Your task to perform on an android device: open app "Facebook Messenger" (install if not already installed) and enter user name: "divorce@inbox.com" and password: "caviar" Image 0: 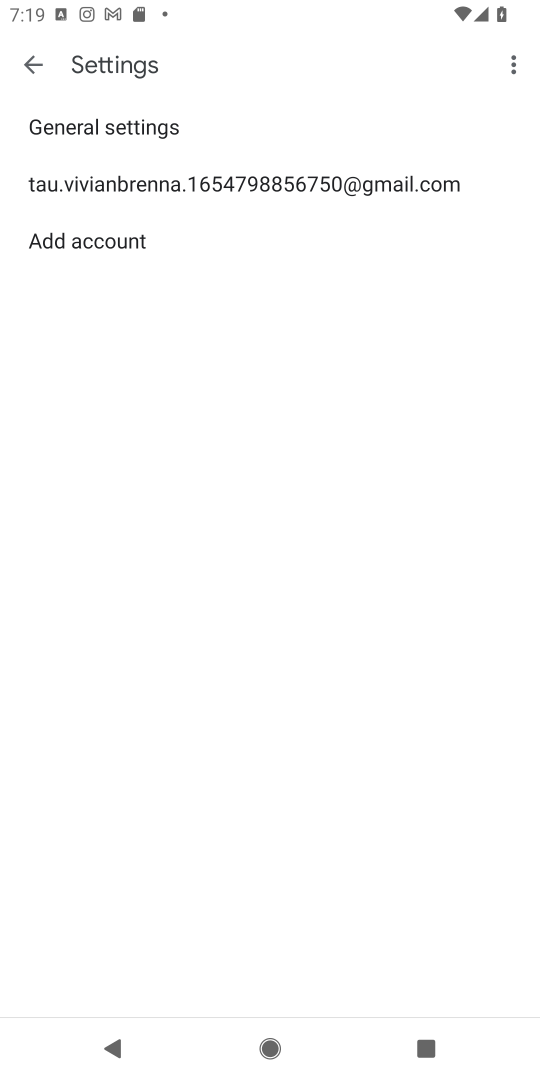
Step 0: press home button
Your task to perform on an android device: open app "Facebook Messenger" (install if not already installed) and enter user name: "divorce@inbox.com" and password: "caviar" Image 1: 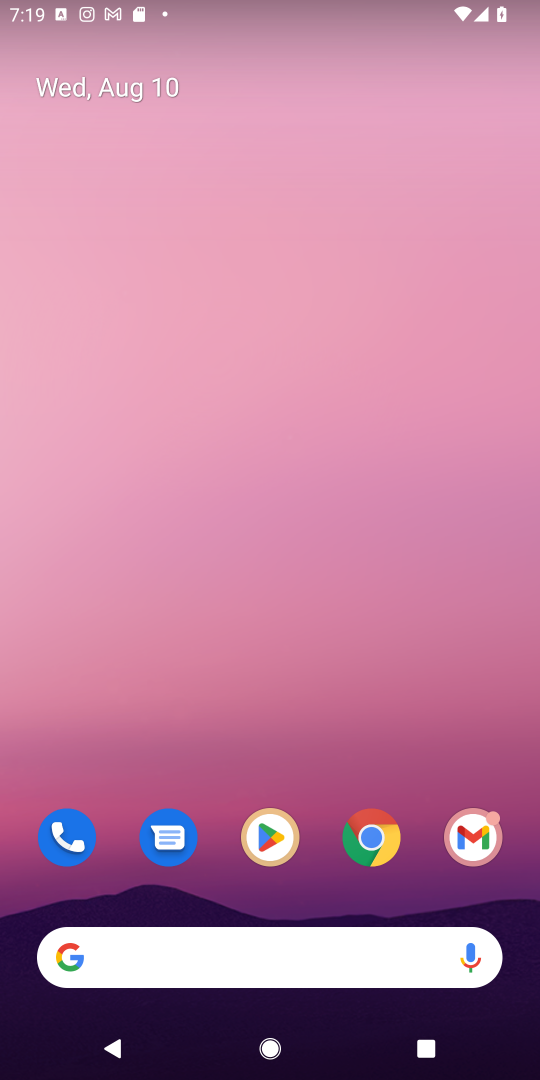
Step 1: click (257, 831)
Your task to perform on an android device: open app "Facebook Messenger" (install if not already installed) and enter user name: "divorce@inbox.com" and password: "caviar" Image 2: 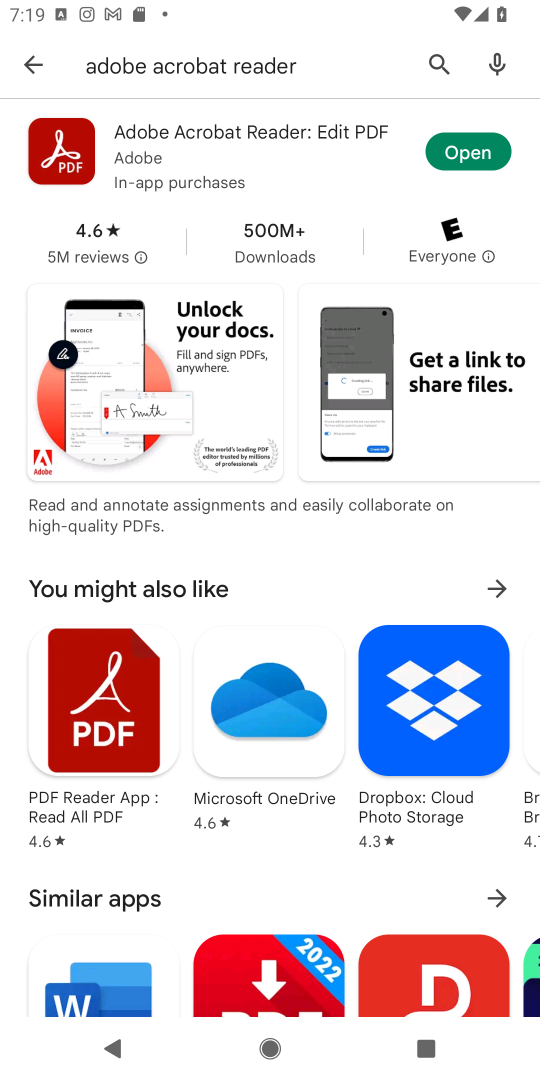
Step 2: click (431, 58)
Your task to perform on an android device: open app "Facebook Messenger" (install if not already installed) and enter user name: "divorce@inbox.com" and password: "caviar" Image 3: 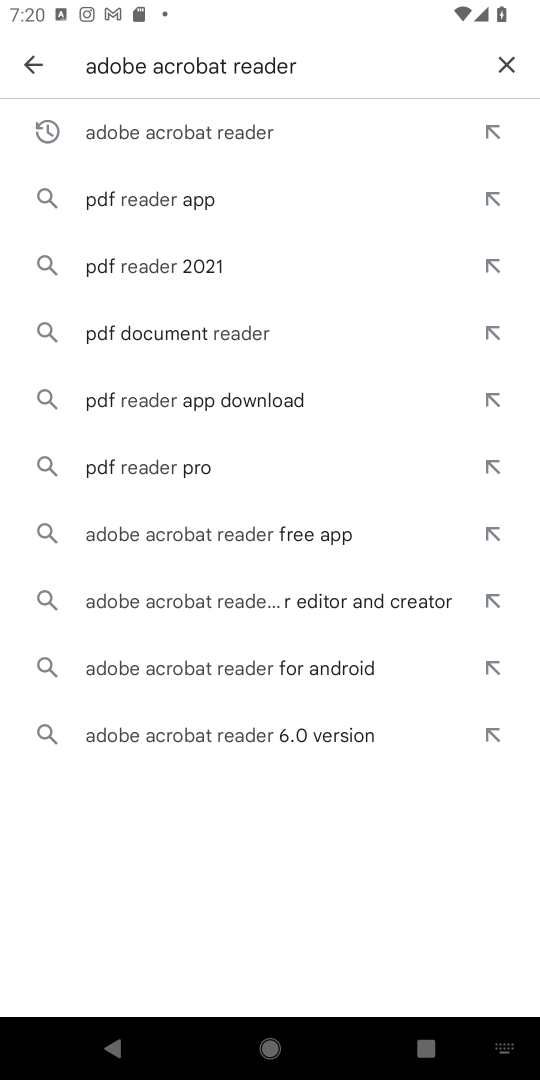
Step 3: click (507, 58)
Your task to perform on an android device: open app "Facebook Messenger" (install if not already installed) and enter user name: "divorce@inbox.com" and password: "caviar" Image 4: 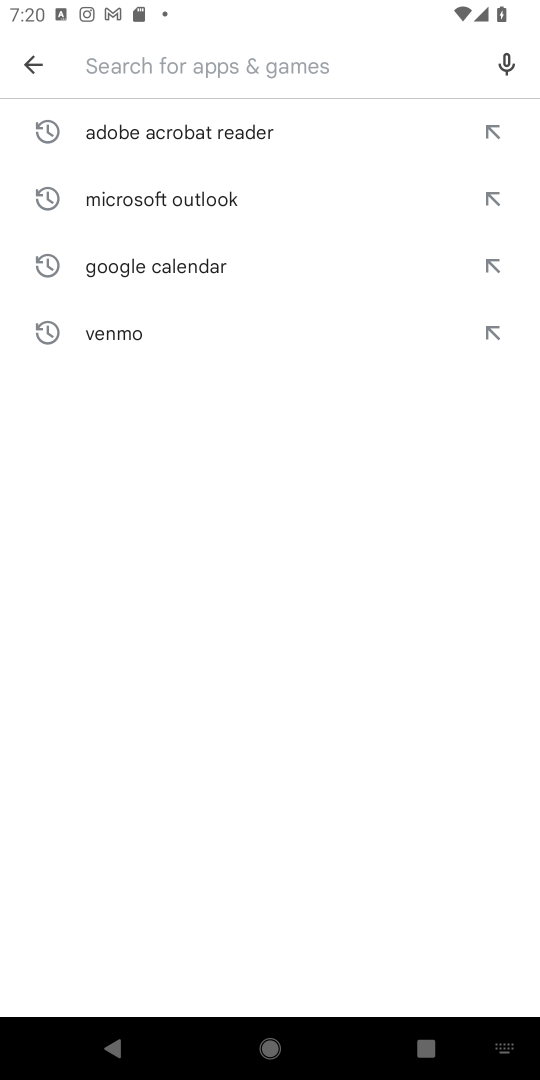
Step 4: type "Facebook Messenger"
Your task to perform on an android device: open app "Facebook Messenger" (install if not already installed) and enter user name: "divorce@inbox.com" and password: "caviar" Image 5: 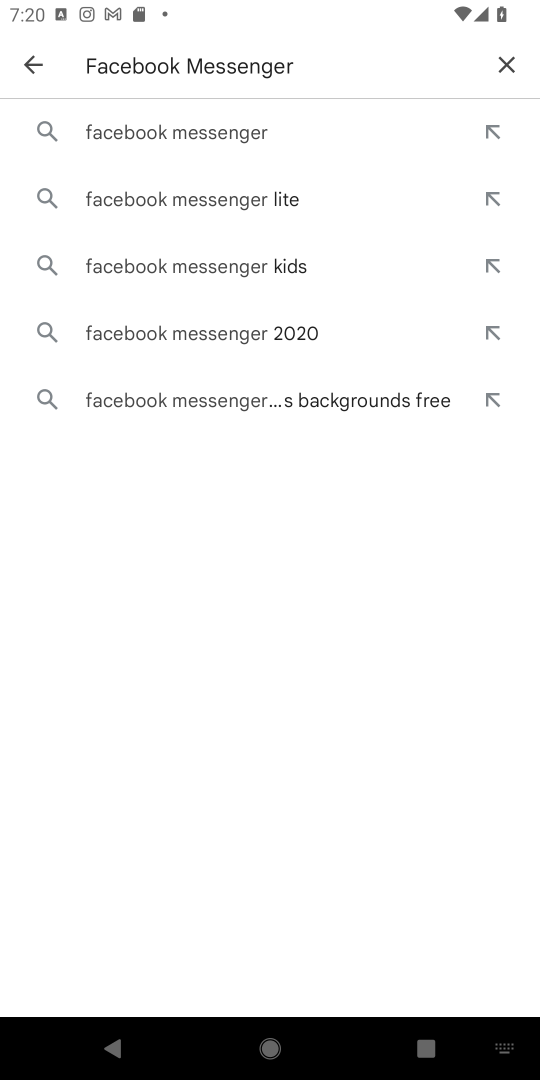
Step 5: click (228, 120)
Your task to perform on an android device: open app "Facebook Messenger" (install if not already installed) and enter user name: "divorce@inbox.com" and password: "caviar" Image 6: 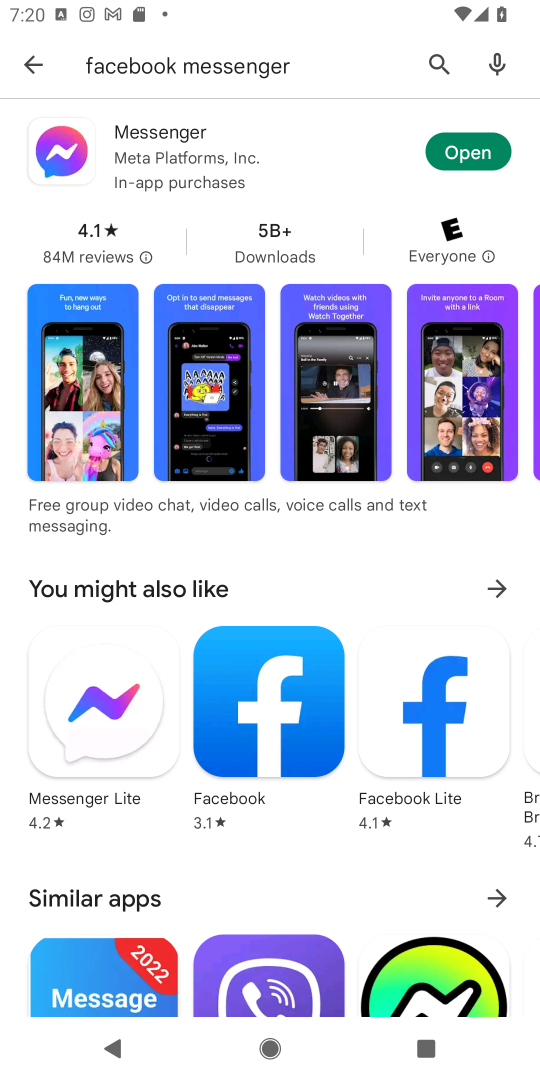
Step 6: click (464, 155)
Your task to perform on an android device: open app "Facebook Messenger" (install if not already installed) and enter user name: "divorce@inbox.com" and password: "caviar" Image 7: 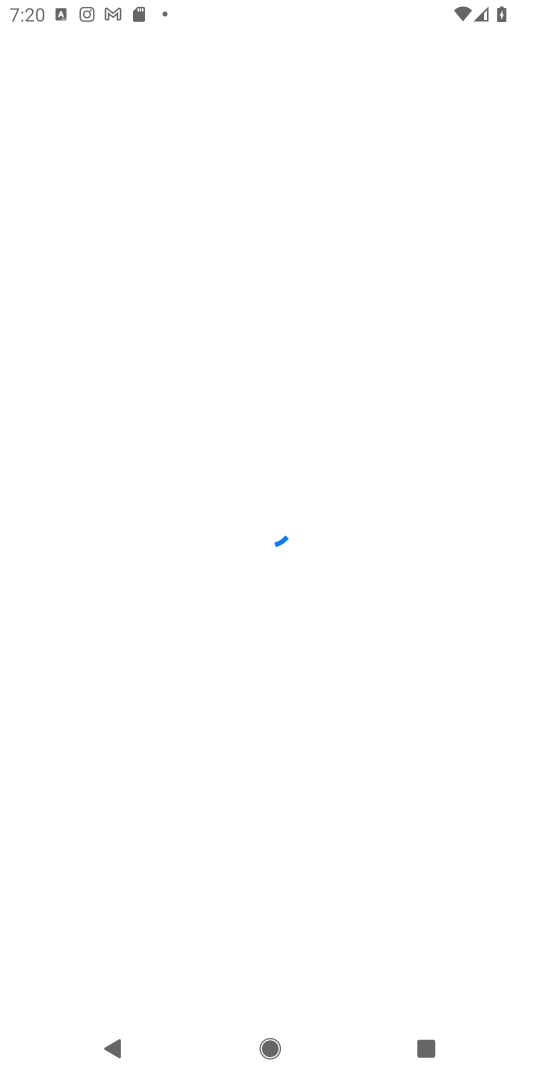
Step 7: task complete